Your task to perform on an android device: Open settings on Google Maps Image 0: 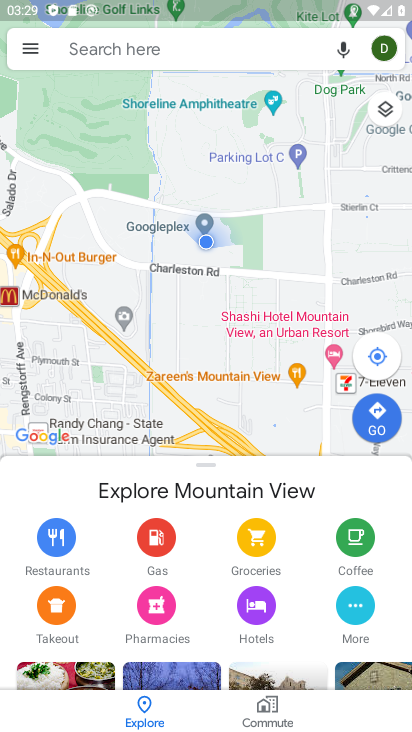
Step 0: click (31, 42)
Your task to perform on an android device: Open settings on Google Maps Image 1: 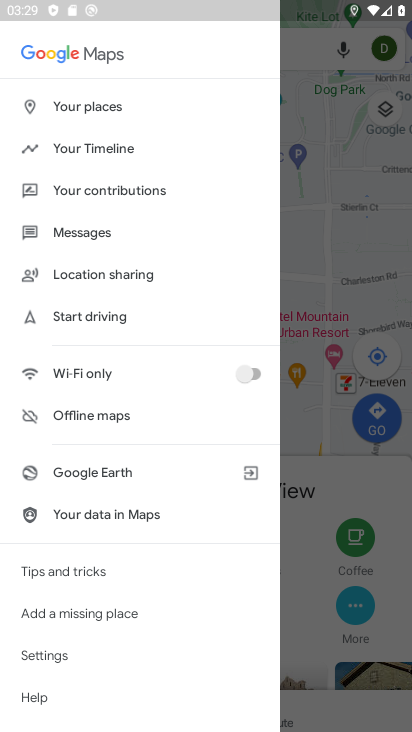
Step 1: click (69, 655)
Your task to perform on an android device: Open settings on Google Maps Image 2: 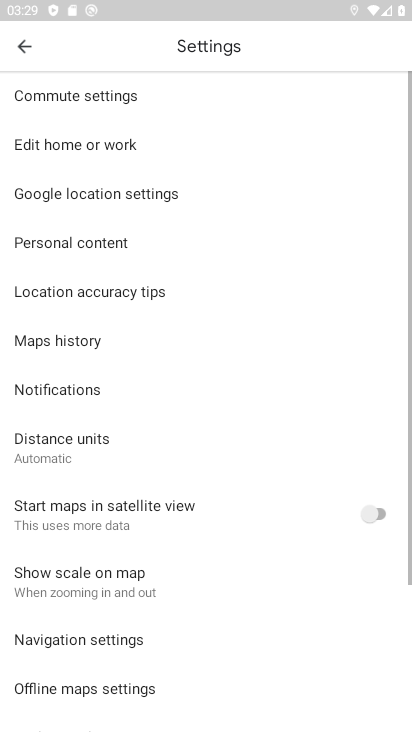
Step 2: task complete